Your task to perform on an android device: Search for vegetarian restaurants on Maps Image 0: 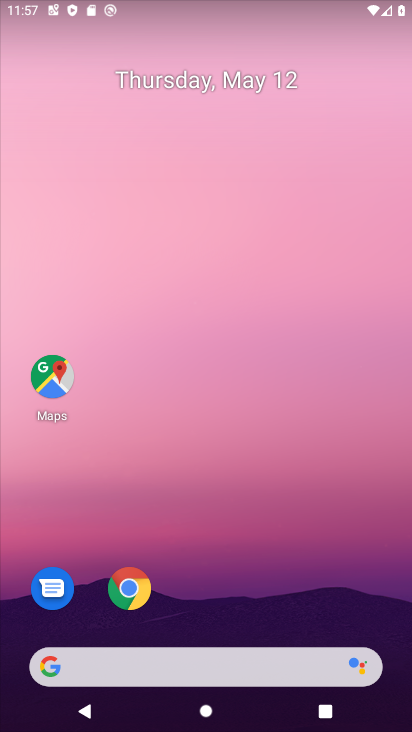
Step 0: drag from (231, 654) to (305, 114)
Your task to perform on an android device: Search for vegetarian restaurants on Maps Image 1: 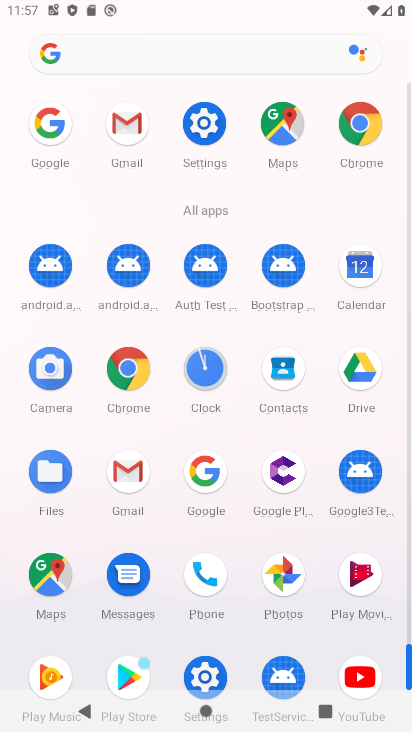
Step 1: click (288, 133)
Your task to perform on an android device: Search for vegetarian restaurants on Maps Image 2: 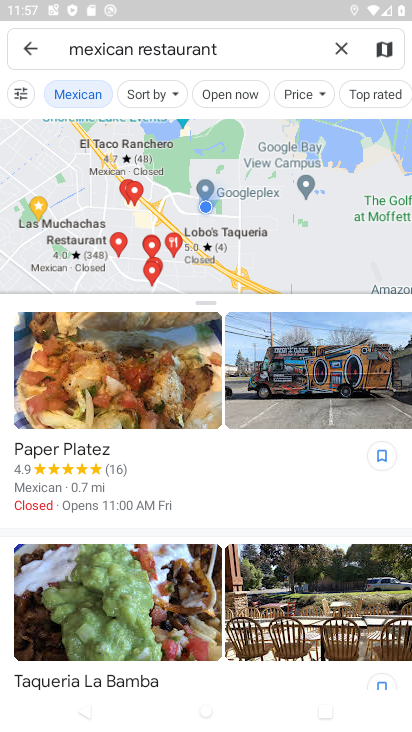
Step 2: click (345, 51)
Your task to perform on an android device: Search for vegetarian restaurants on Maps Image 3: 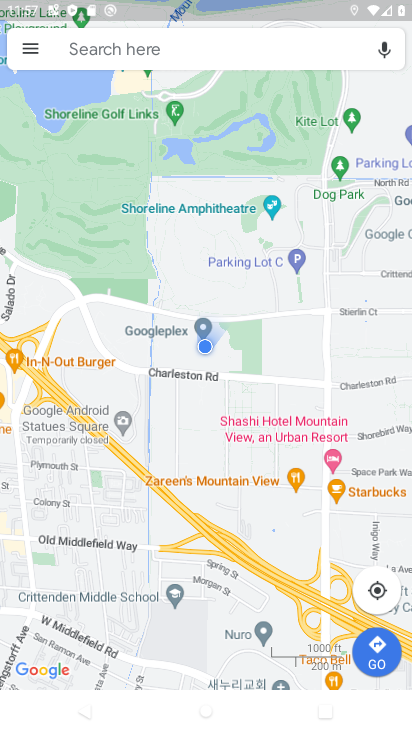
Step 3: click (217, 41)
Your task to perform on an android device: Search for vegetarian restaurants on Maps Image 4: 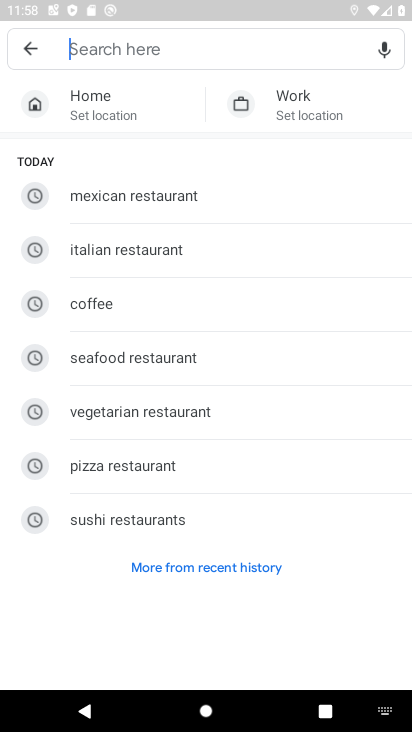
Step 4: click (141, 402)
Your task to perform on an android device: Search for vegetarian restaurants on Maps Image 5: 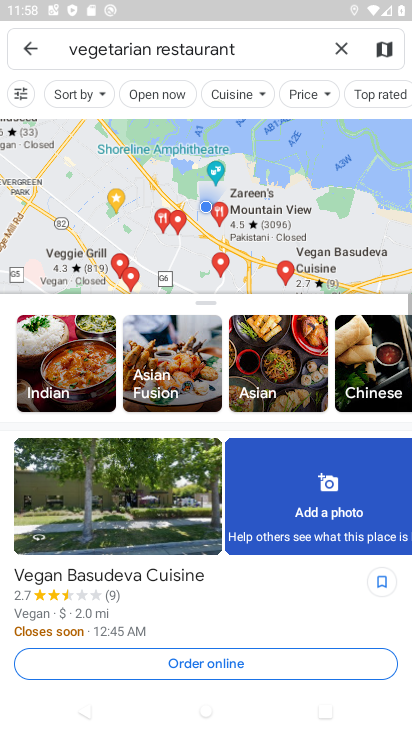
Step 5: task complete